Your task to perform on an android device: toggle airplane mode Image 0: 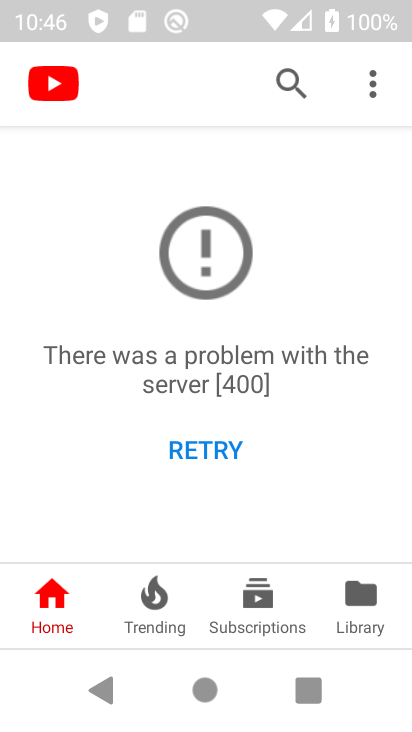
Step 0: press home button
Your task to perform on an android device: toggle airplane mode Image 1: 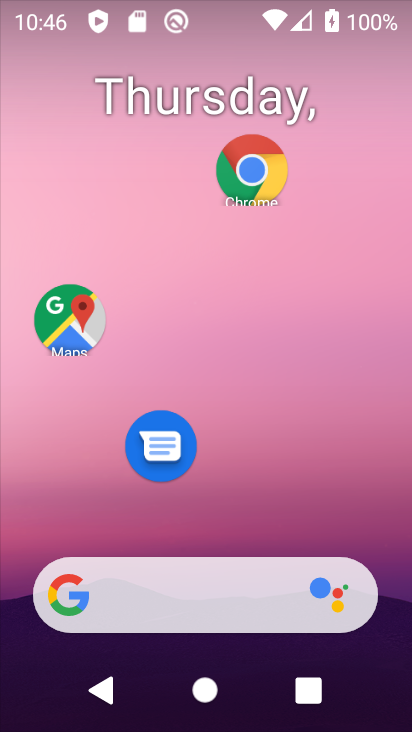
Step 1: drag from (186, 555) to (213, 197)
Your task to perform on an android device: toggle airplane mode Image 2: 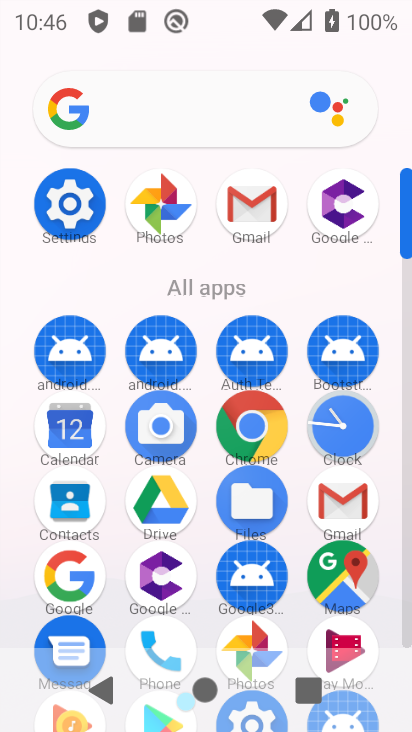
Step 2: click (67, 207)
Your task to perform on an android device: toggle airplane mode Image 3: 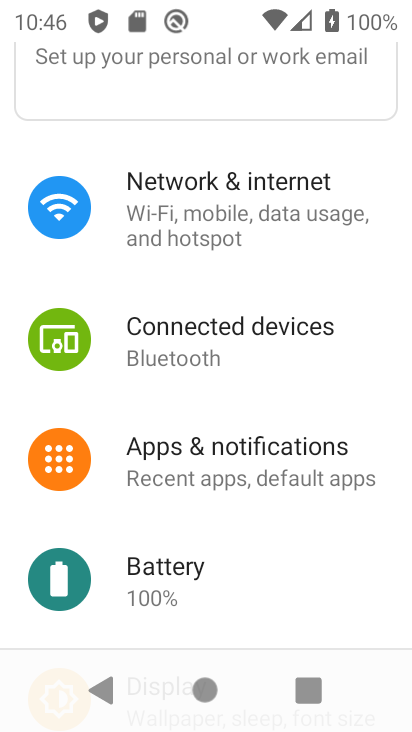
Step 3: click (194, 202)
Your task to perform on an android device: toggle airplane mode Image 4: 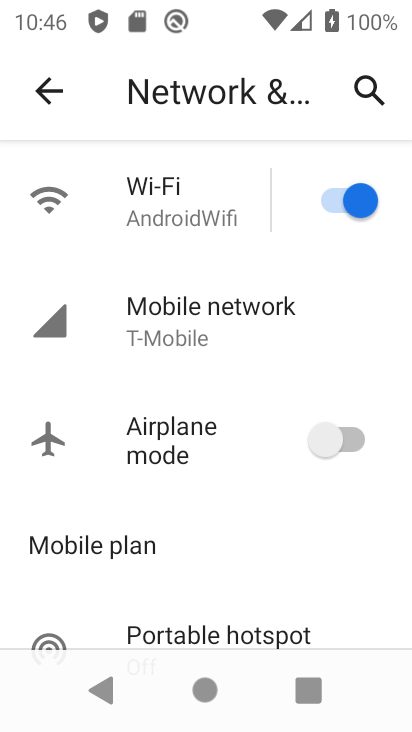
Step 4: click (352, 439)
Your task to perform on an android device: toggle airplane mode Image 5: 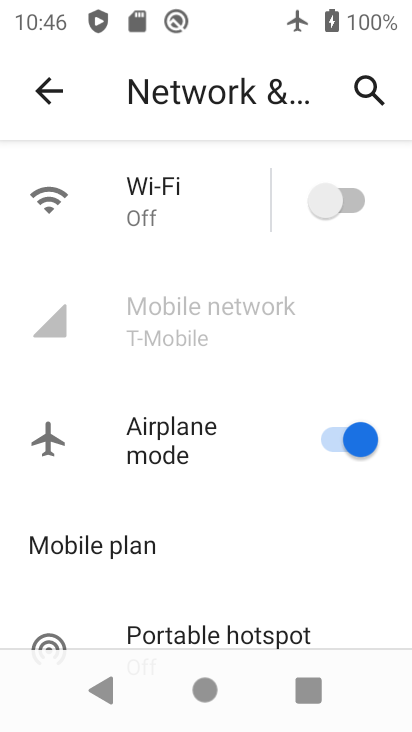
Step 5: task complete